Your task to perform on an android device: create a new album in the google photos Image 0: 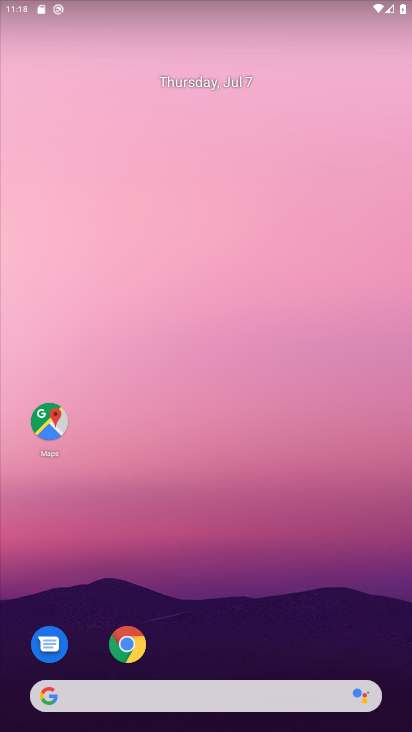
Step 0: drag from (29, 697) to (273, 4)
Your task to perform on an android device: create a new album in the google photos Image 1: 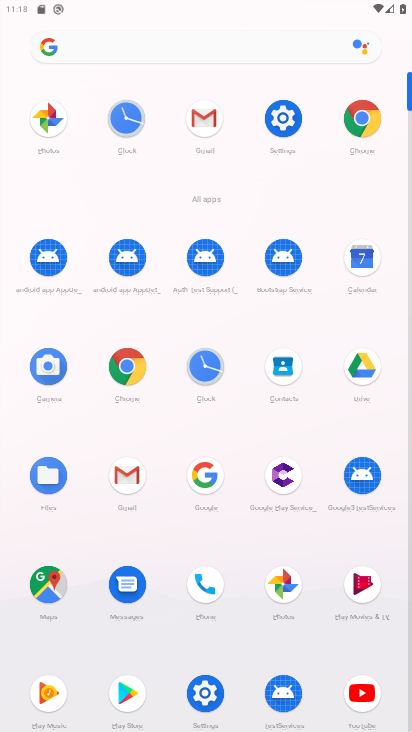
Step 1: click (271, 582)
Your task to perform on an android device: create a new album in the google photos Image 2: 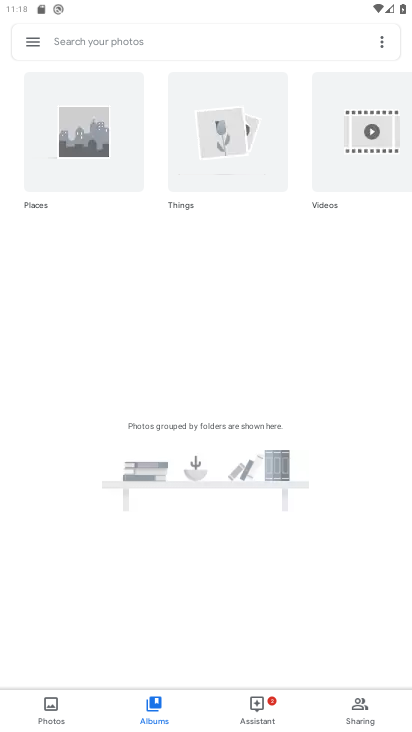
Step 2: click (386, 35)
Your task to perform on an android device: create a new album in the google photos Image 3: 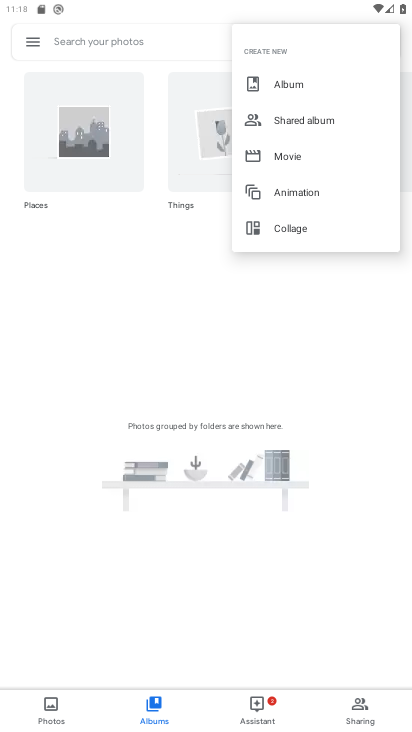
Step 3: click (303, 86)
Your task to perform on an android device: create a new album in the google photos Image 4: 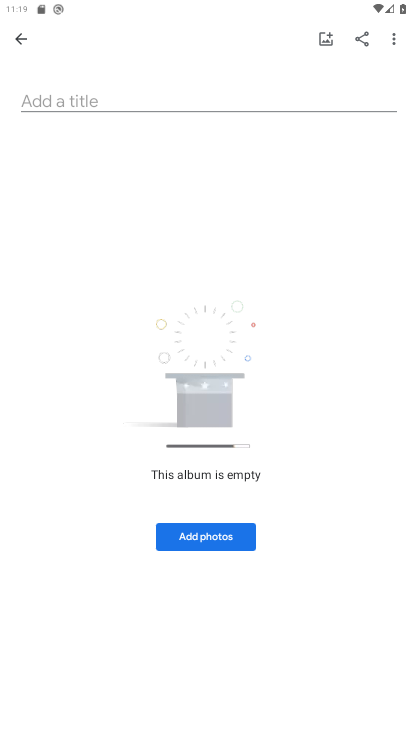
Step 4: click (69, 86)
Your task to perform on an android device: create a new album in the google photos Image 5: 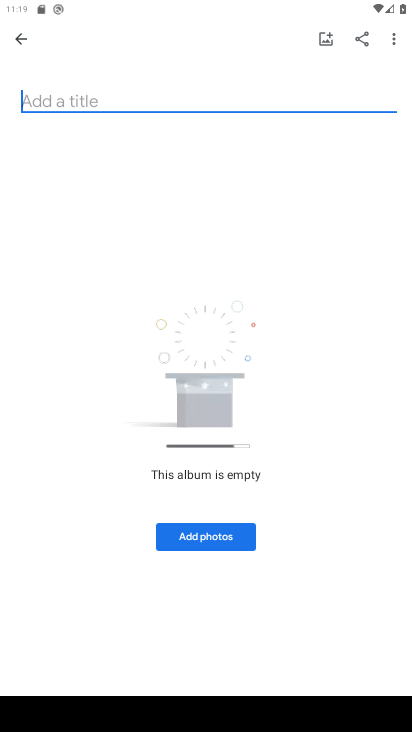
Step 5: click (173, 536)
Your task to perform on an android device: create a new album in the google photos Image 6: 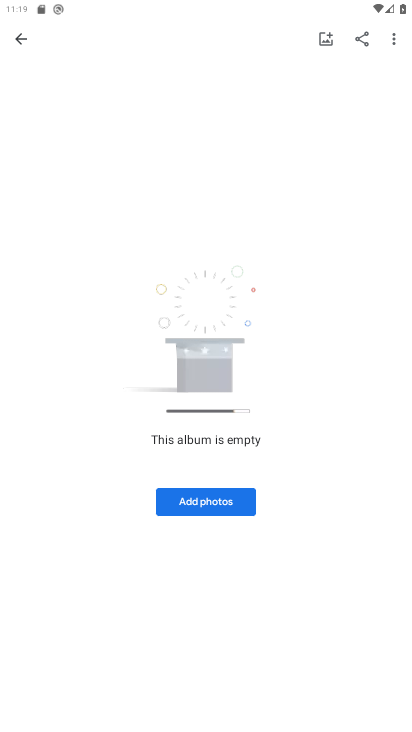
Step 6: click (202, 499)
Your task to perform on an android device: create a new album in the google photos Image 7: 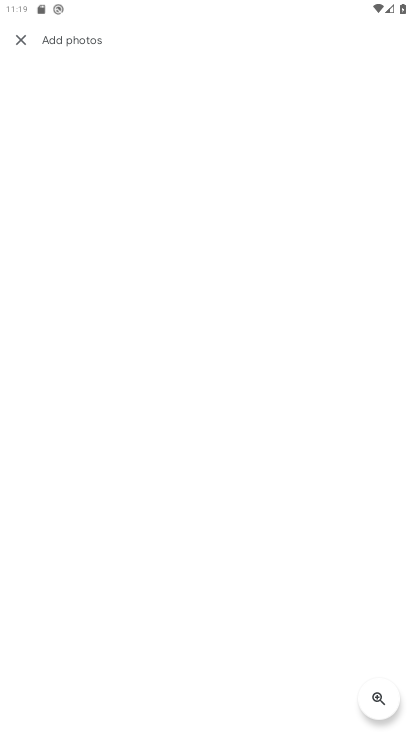
Step 7: task complete